Your task to perform on an android device: Search for pizza restaurants on Maps Image 0: 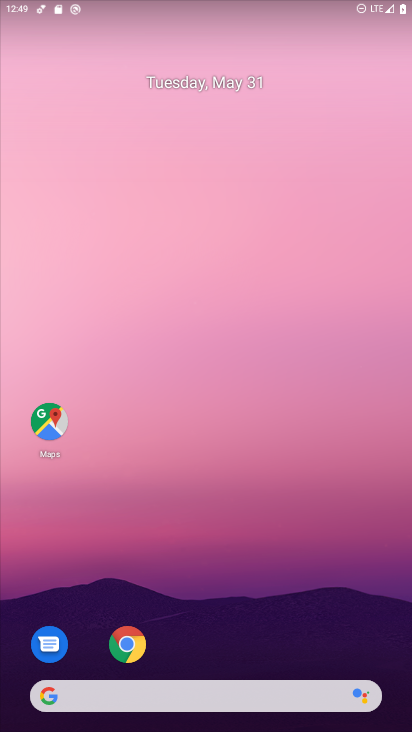
Step 0: drag from (218, 620) to (280, 157)
Your task to perform on an android device: Search for pizza restaurants on Maps Image 1: 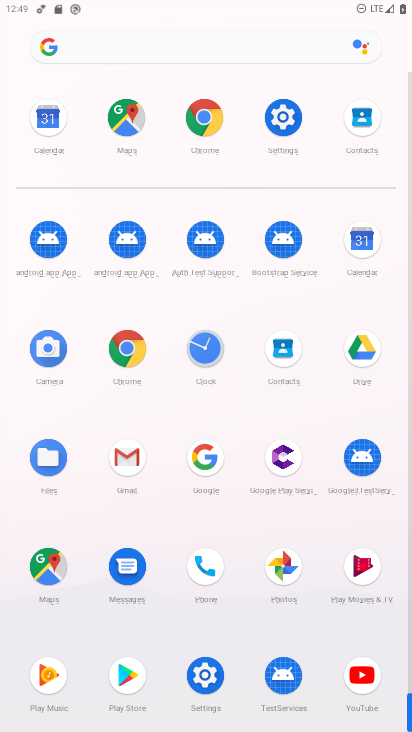
Step 1: click (48, 561)
Your task to perform on an android device: Search for pizza restaurants on Maps Image 2: 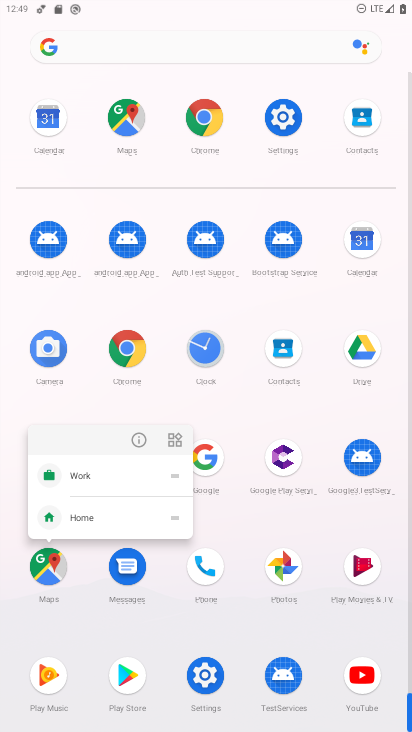
Step 2: click (132, 435)
Your task to perform on an android device: Search for pizza restaurants on Maps Image 3: 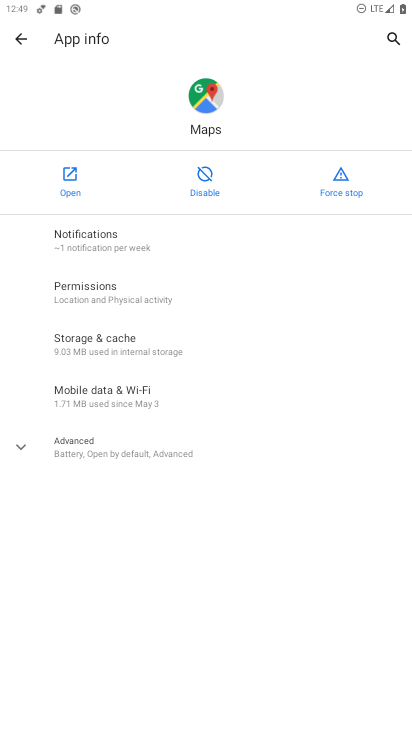
Step 3: click (77, 161)
Your task to perform on an android device: Search for pizza restaurants on Maps Image 4: 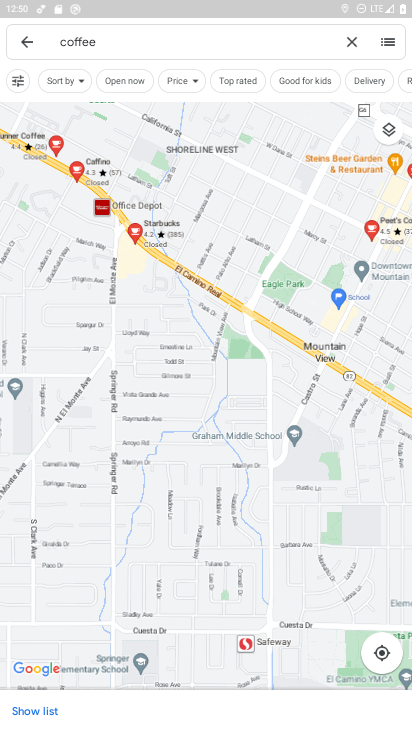
Step 4: click (347, 45)
Your task to perform on an android device: Search for pizza restaurants on Maps Image 5: 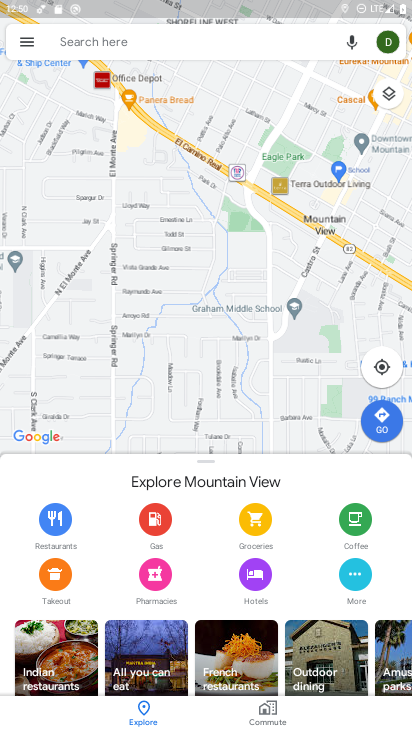
Step 5: click (96, 40)
Your task to perform on an android device: Search for pizza restaurants on Maps Image 6: 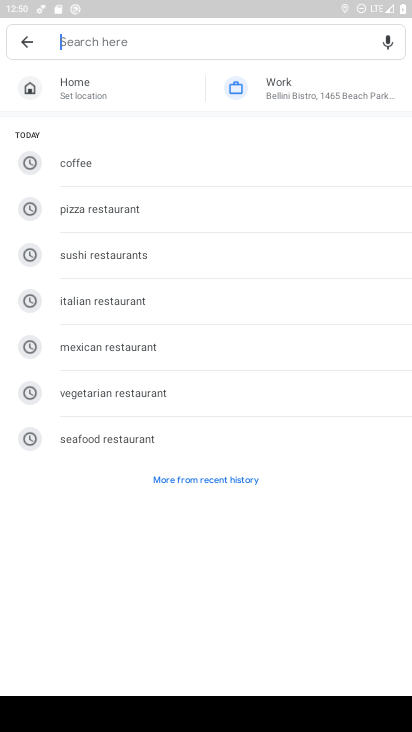
Step 6: click (94, 213)
Your task to perform on an android device: Search for pizza restaurants on Maps Image 7: 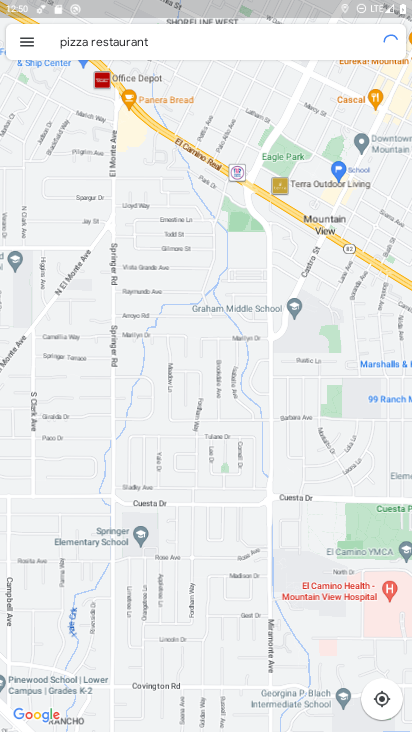
Step 7: task complete